Your task to perform on an android device: turn notification dots on Image 0: 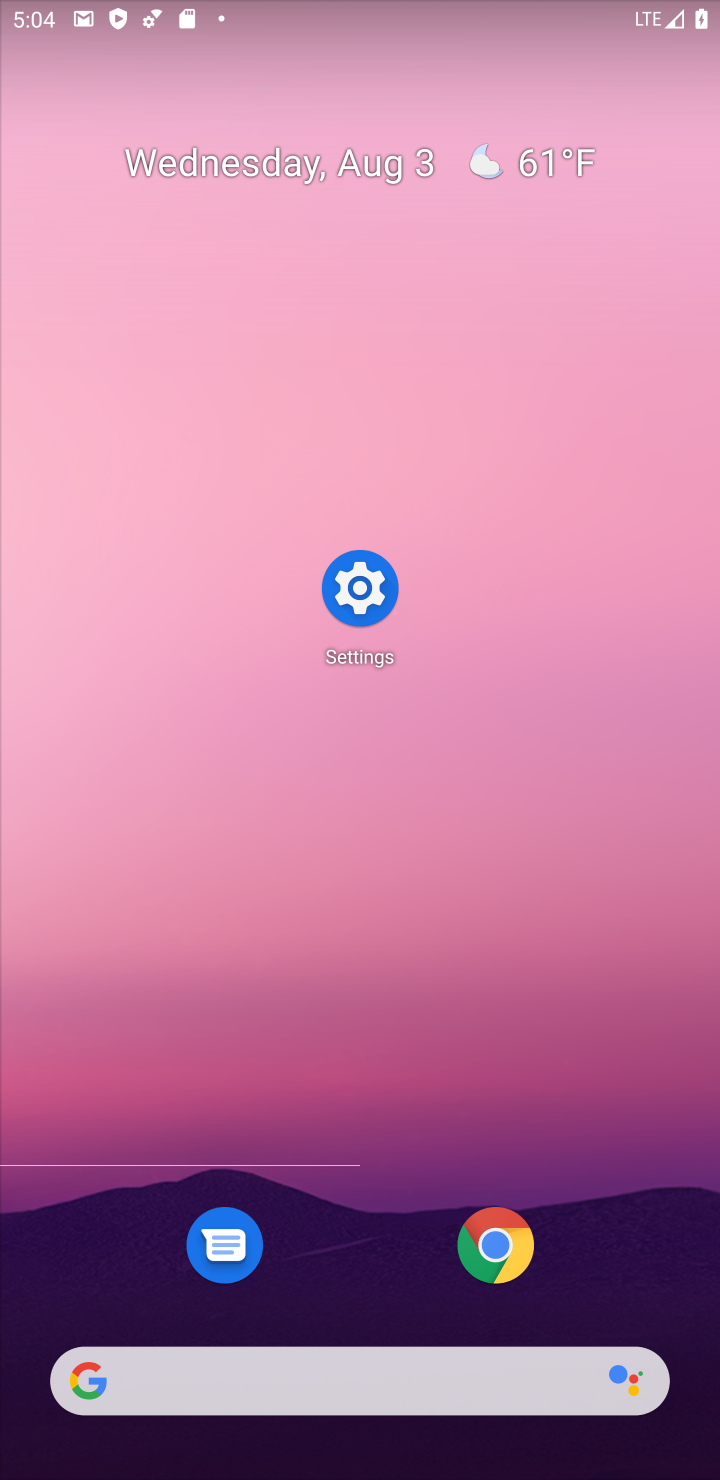
Step 0: drag from (492, 1386) to (332, 56)
Your task to perform on an android device: turn notification dots on Image 1: 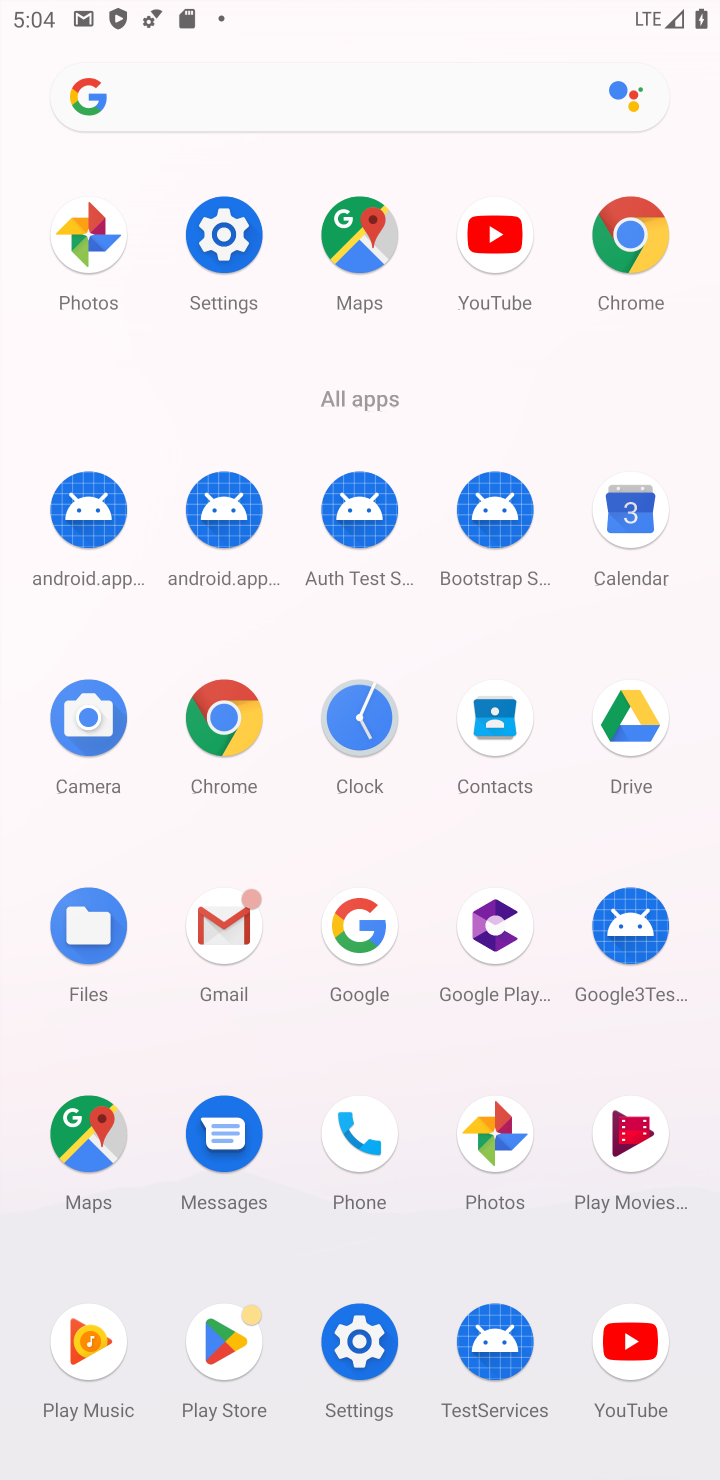
Step 1: click (347, 1354)
Your task to perform on an android device: turn notification dots on Image 2: 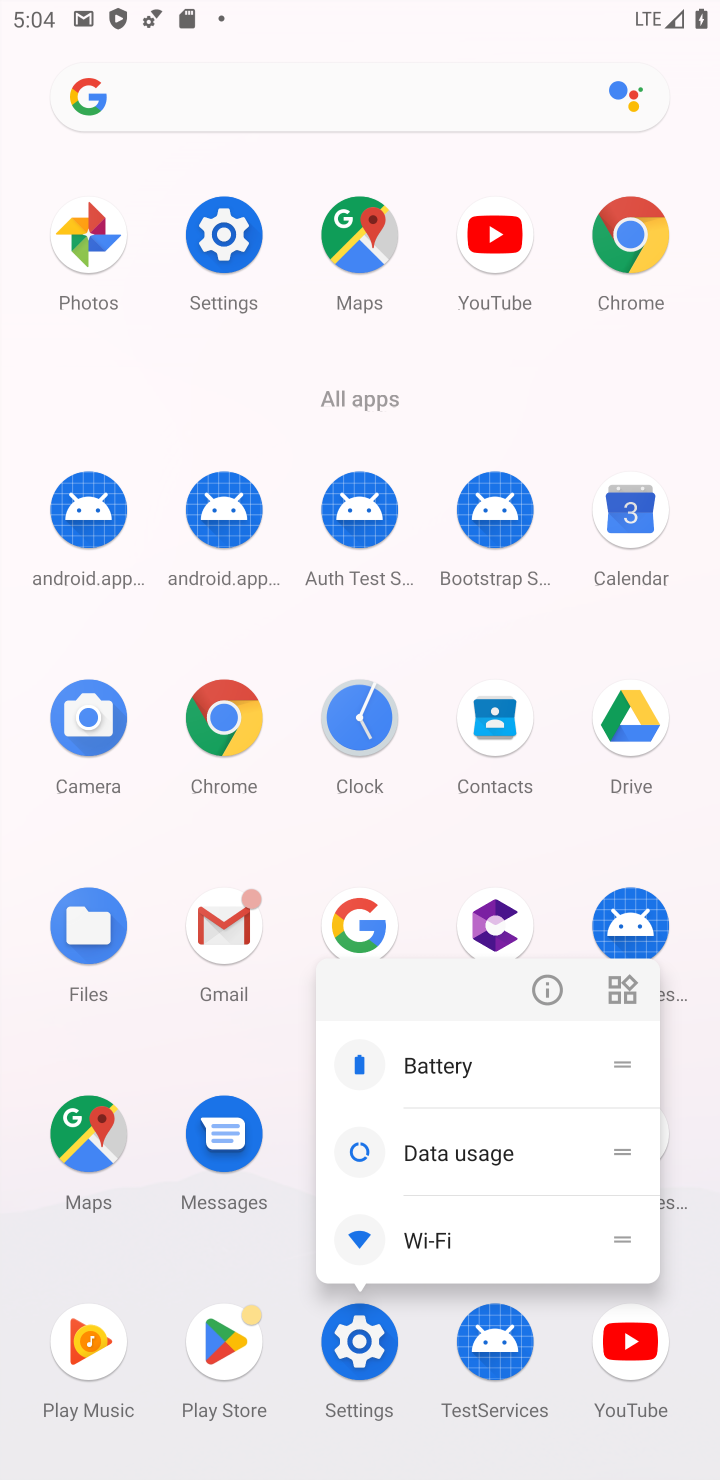
Step 2: click (366, 1353)
Your task to perform on an android device: turn notification dots on Image 3: 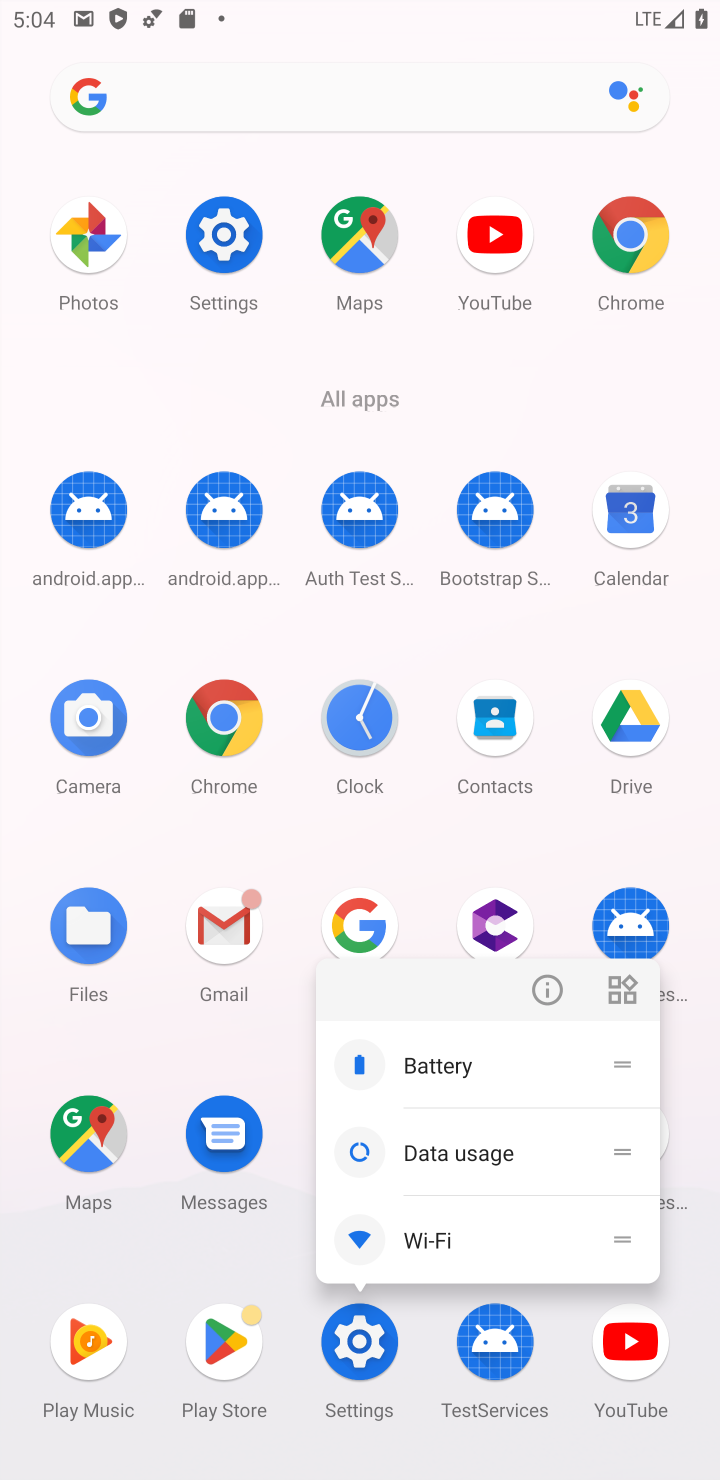
Step 3: click (366, 1353)
Your task to perform on an android device: turn notification dots on Image 4: 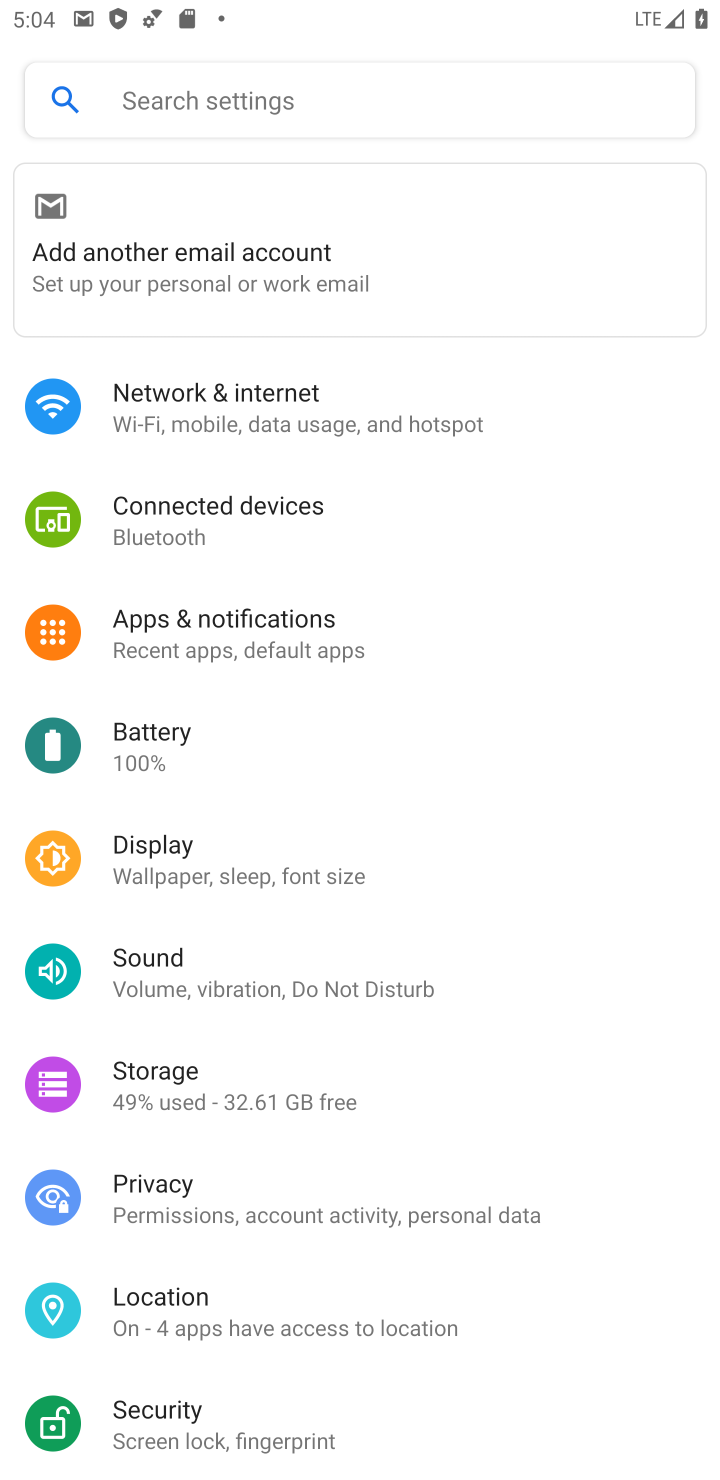
Step 4: click (210, 630)
Your task to perform on an android device: turn notification dots on Image 5: 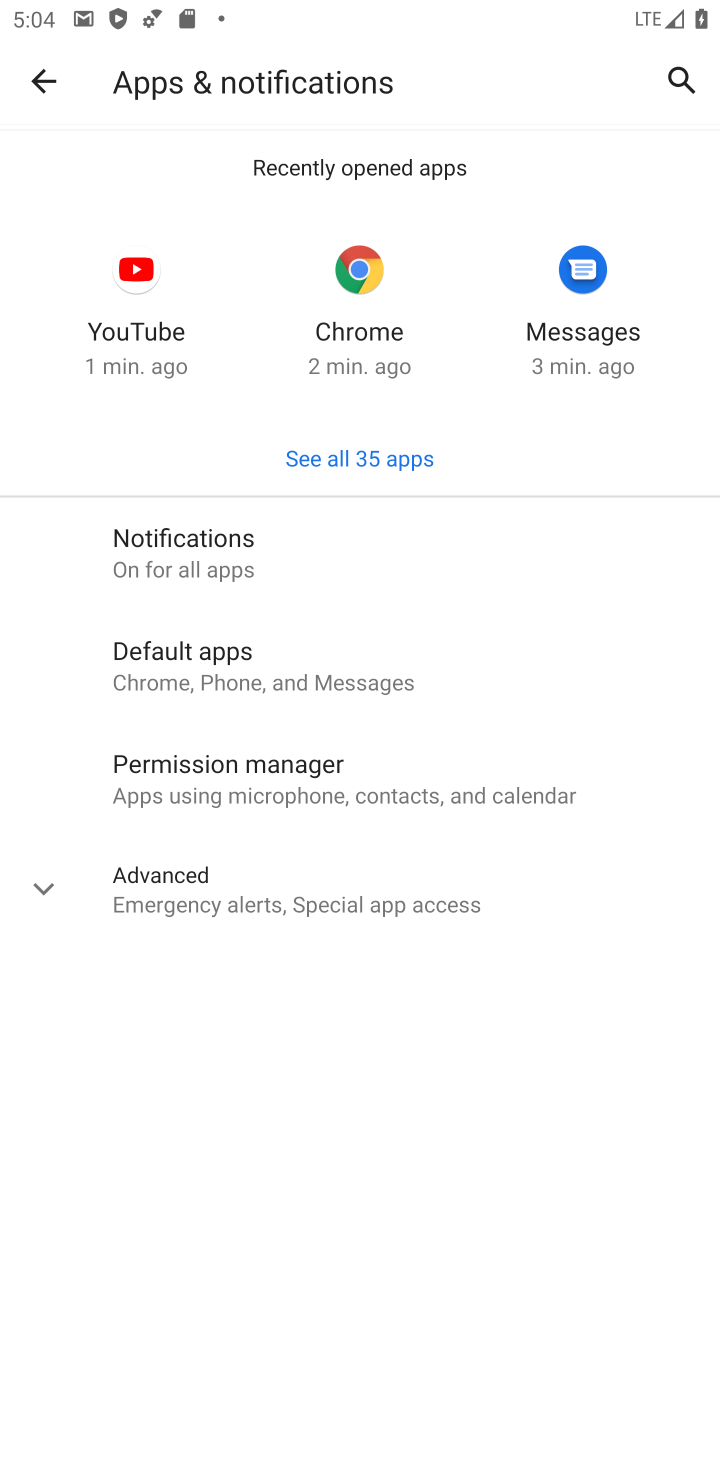
Step 5: click (242, 575)
Your task to perform on an android device: turn notification dots on Image 6: 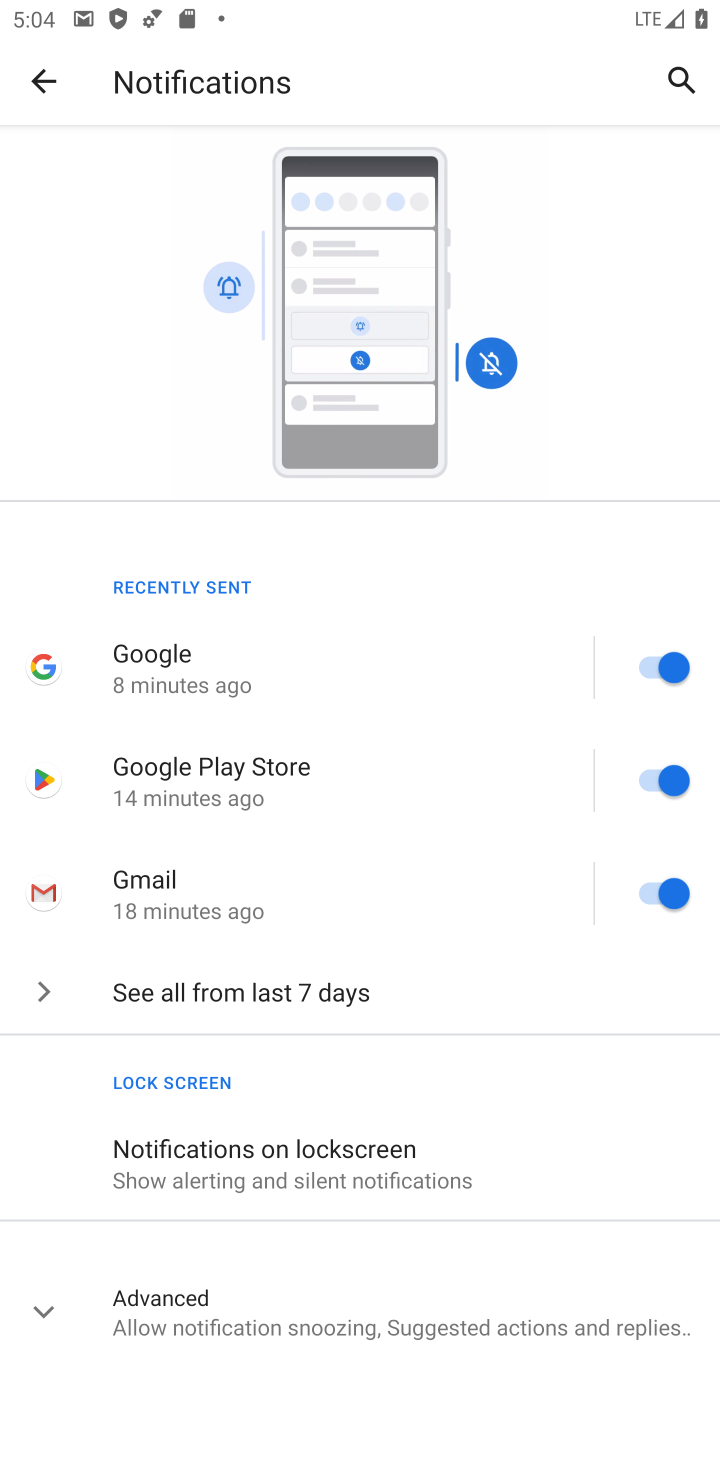
Step 6: click (257, 1311)
Your task to perform on an android device: turn notification dots on Image 7: 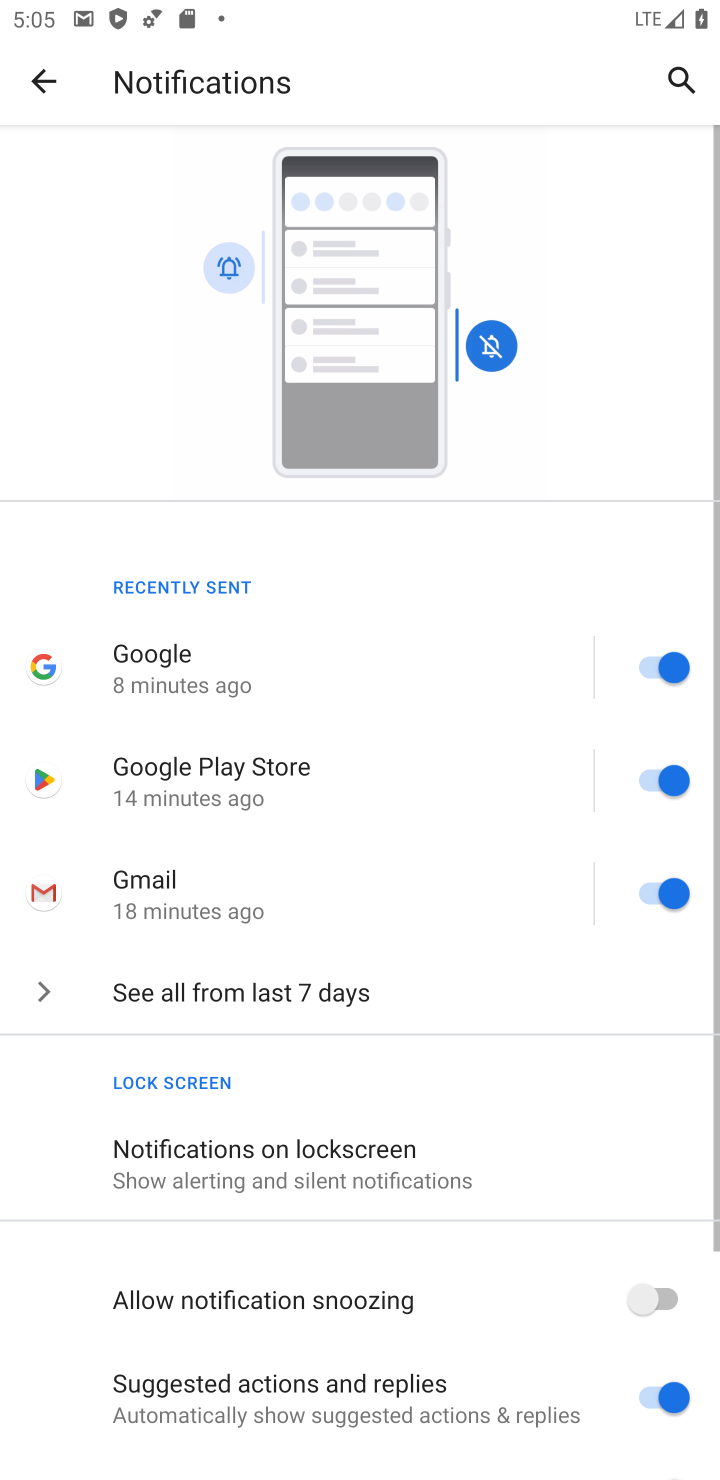
Step 7: task complete